Your task to perform on an android device: Go to ESPN.com Image 0: 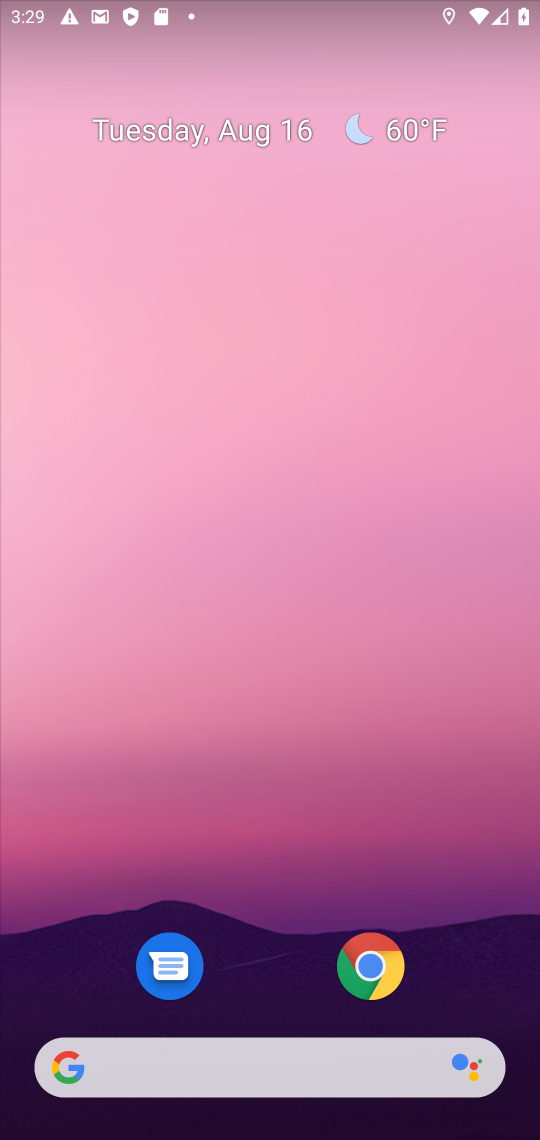
Step 0: click (121, 1069)
Your task to perform on an android device: Go to ESPN.com Image 1: 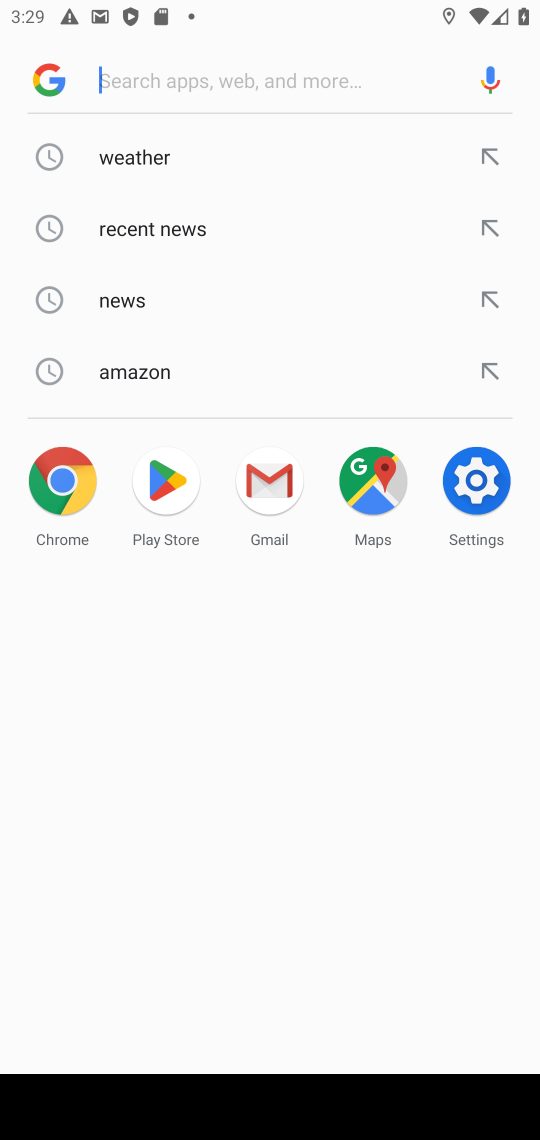
Step 1: type "ESPN.com"
Your task to perform on an android device: Go to ESPN.com Image 2: 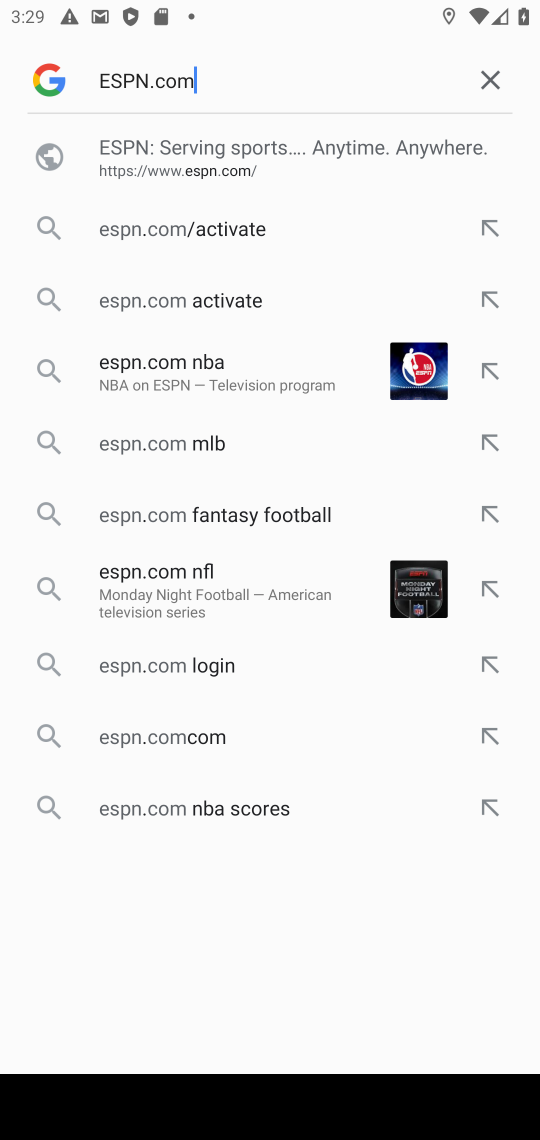
Step 2: click (110, 162)
Your task to perform on an android device: Go to ESPN.com Image 3: 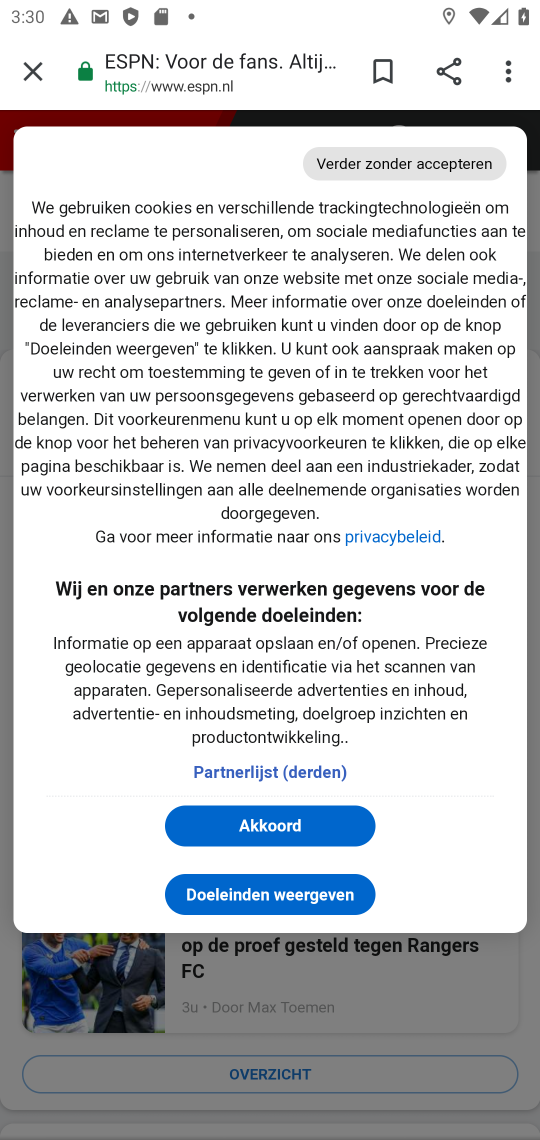
Step 3: task complete